Your task to perform on an android device: Go to settings Image 0: 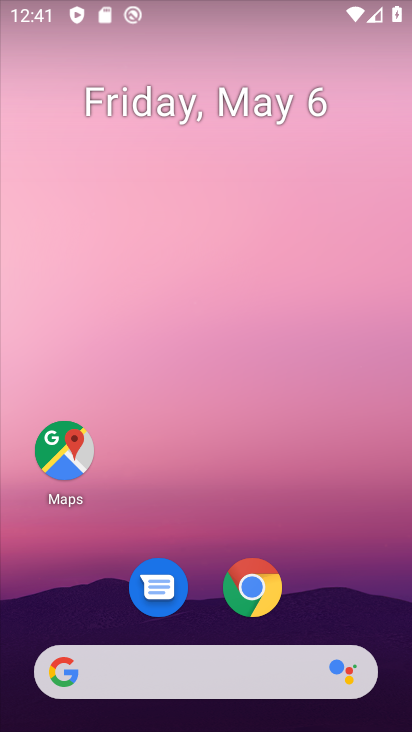
Step 0: drag from (32, 555) to (263, 134)
Your task to perform on an android device: Go to settings Image 1: 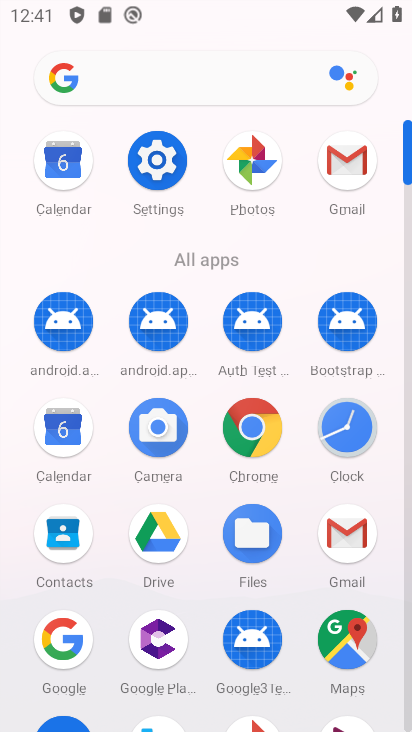
Step 1: click (173, 163)
Your task to perform on an android device: Go to settings Image 2: 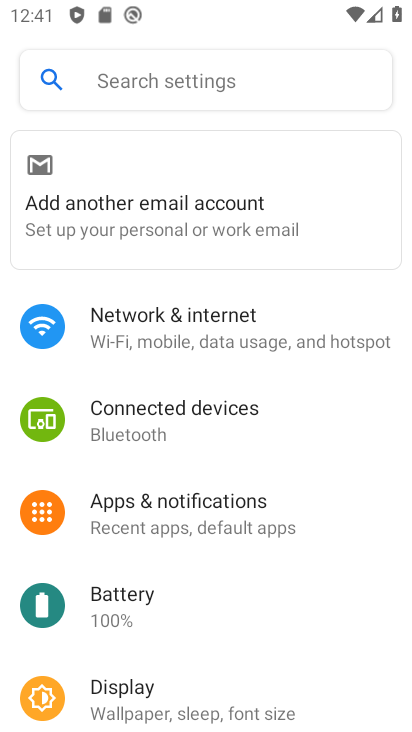
Step 2: task complete